Your task to perform on an android device: open a bookmark in the chrome app Image 0: 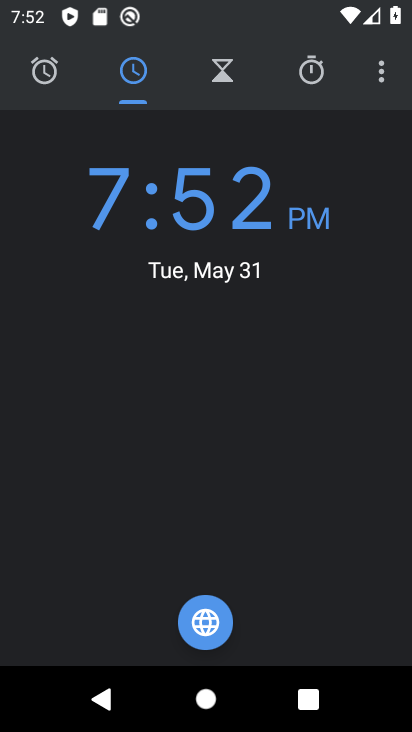
Step 0: press home button
Your task to perform on an android device: open a bookmark in the chrome app Image 1: 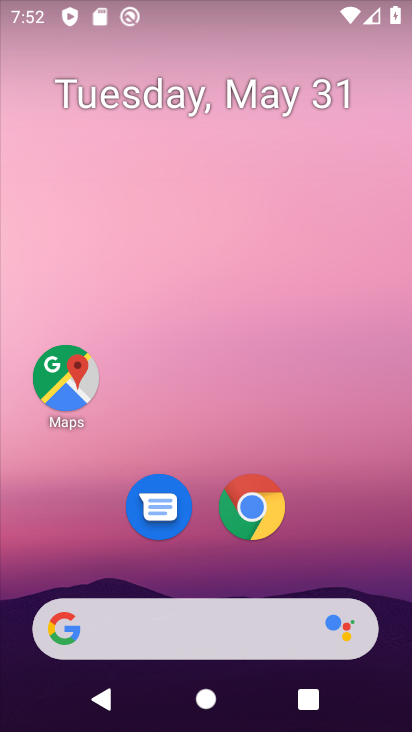
Step 1: click (263, 505)
Your task to perform on an android device: open a bookmark in the chrome app Image 2: 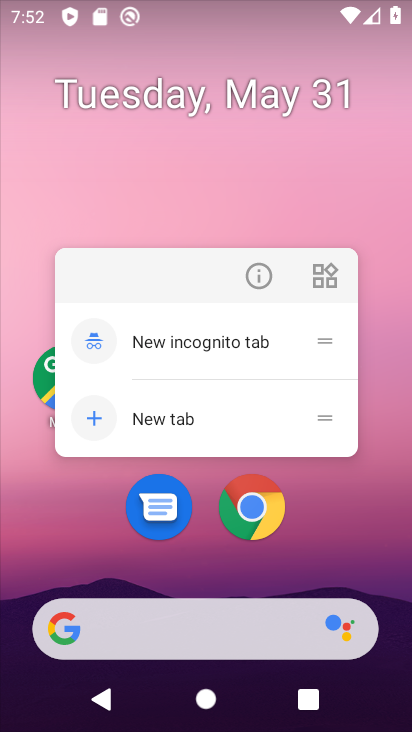
Step 2: click (343, 501)
Your task to perform on an android device: open a bookmark in the chrome app Image 3: 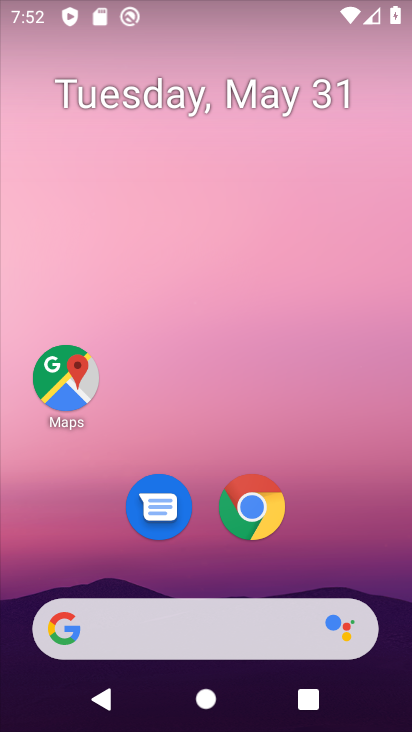
Step 3: click (264, 495)
Your task to perform on an android device: open a bookmark in the chrome app Image 4: 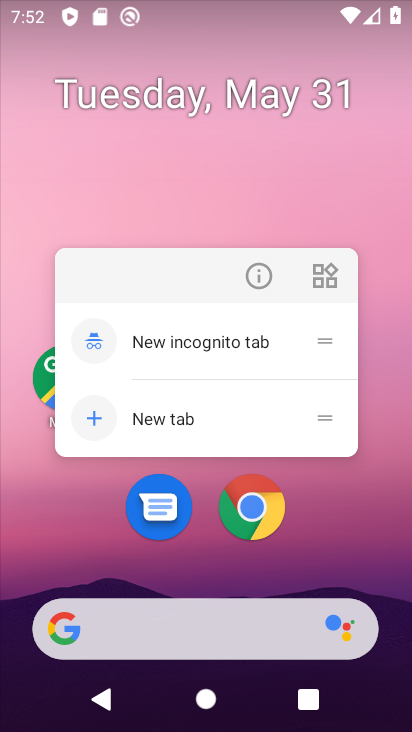
Step 4: click (253, 506)
Your task to perform on an android device: open a bookmark in the chrome app Image 5: 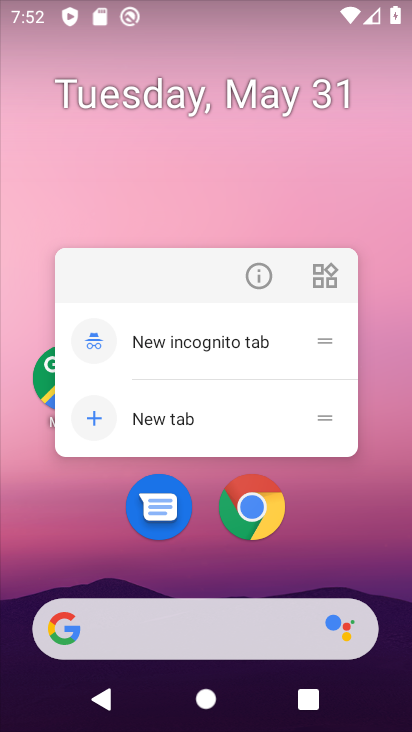
Step 5: click (243, 505)
Your task to perform on an android device: open a bookmark in the chrome app Image 6: 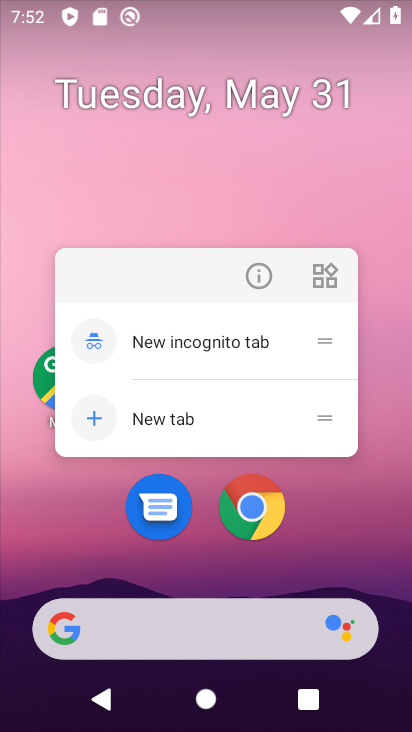
Step 6: click (248, 492)
Your task to perform on an android device: open a bookmark in the chrome app Image 7: 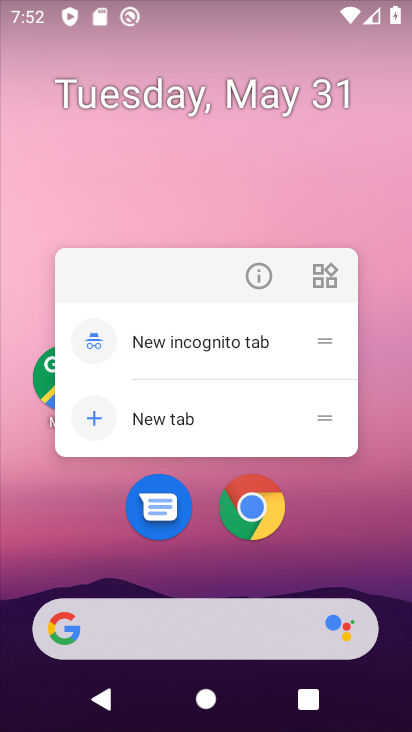
Step 7: click (253, 507)
Your task to perform on an android device: open a bookmark in the chrome app Image 8: 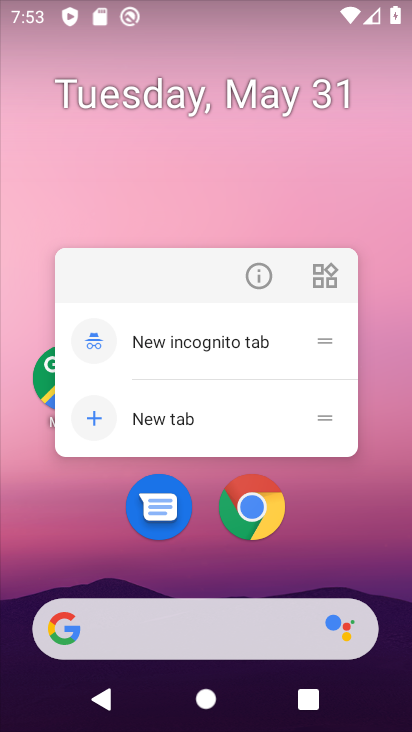
Step 8: click (252, 498)
Your task to perform on an android device: open a bookmark in the chrome app Image 9: 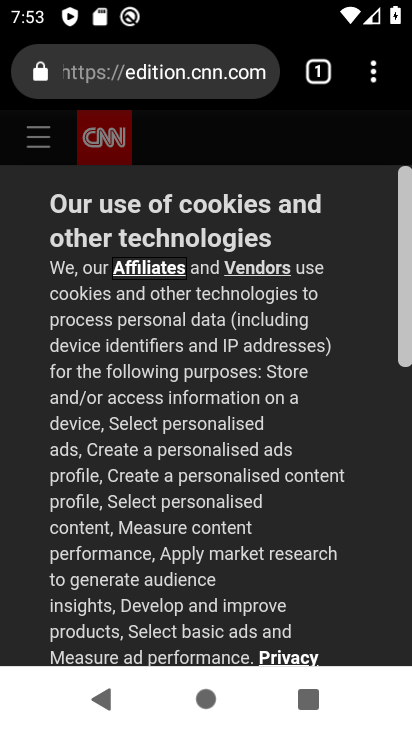
Step 9: click (364, 71)
Your task to perform on an android device: open a bookmark in the chrome app Image 10: 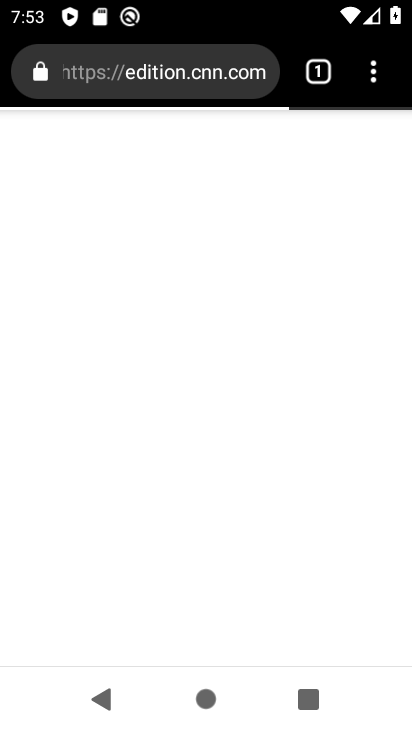
Step 10: click (376, 75)
Your task to perform on an android device: open a bookmark in the chrome app Image 11: 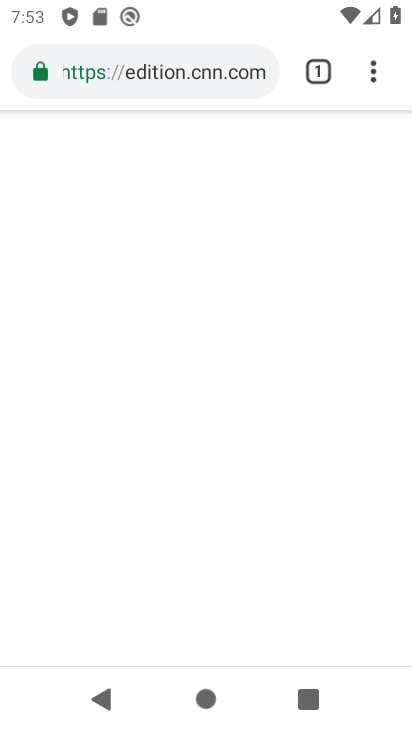
Step 11: click (389, 73)
Your task to perform on an android device: open a bookmark in the chrome app Image 12: 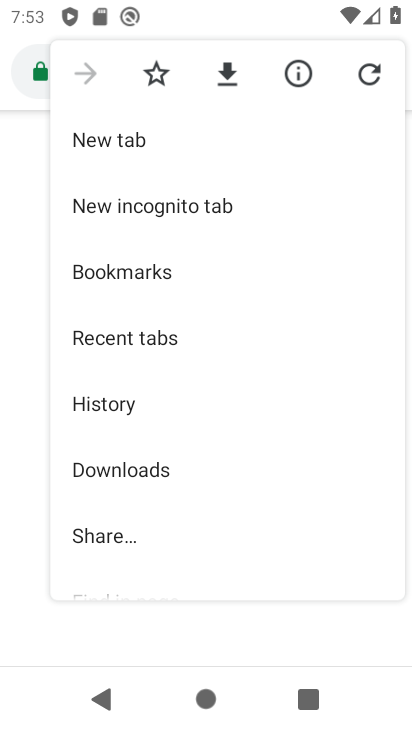
Step 12: click (89, 271)
Your task to perform on an android device: open a bookmark in the chrome app Image 13: 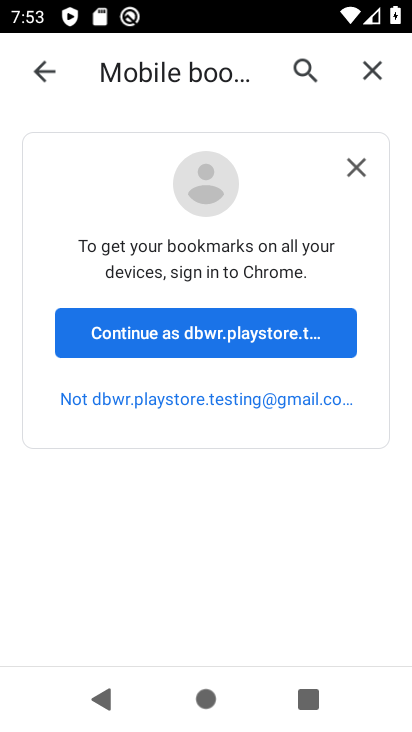
Step 13: click (358, 168)
Your task to perform on an android device: open a bookmark in the chrome app Image 14: 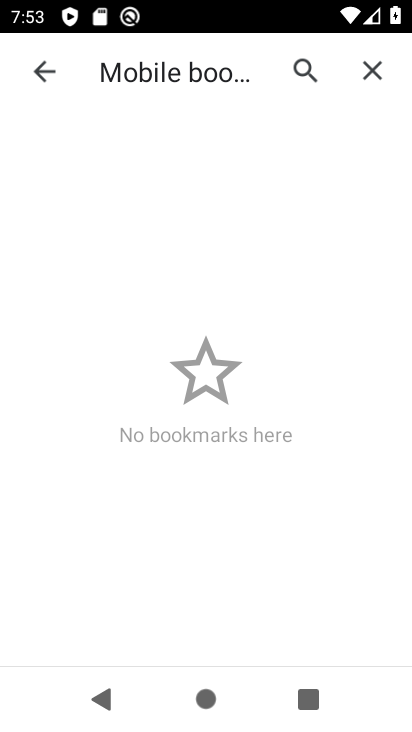
Step 14: task complete